Your task to perform on an android device: add a contact Image 0: 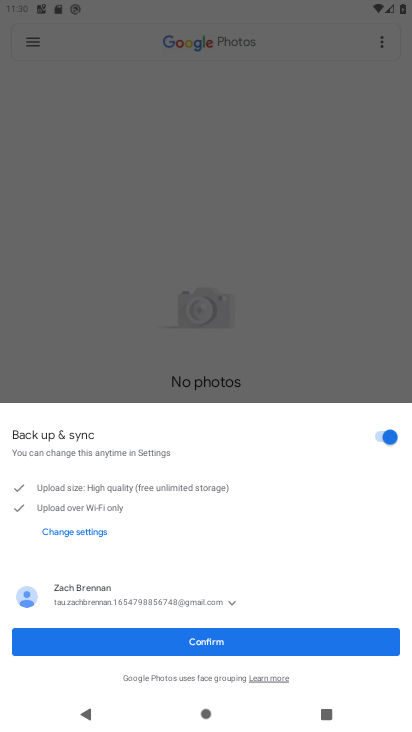
Step 0: press home button
Your task to perform on an android device: add a contact Image 1: 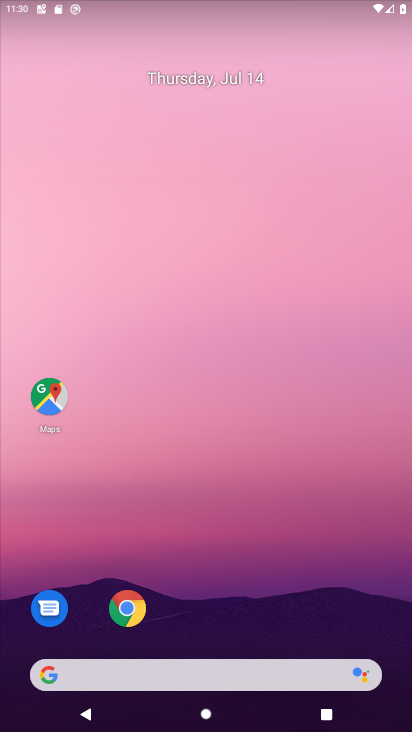
Step 1: drag from (252, 481) to (254, 230)
Your task to perform on an android device: add a contact Image 2: 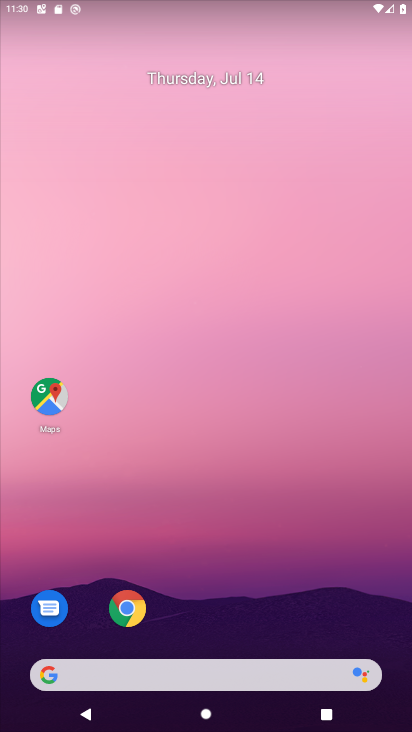
Step 2: drag from (180, 513) to (209, 102)
Your task to perform on an android device: add a contact Image 3: 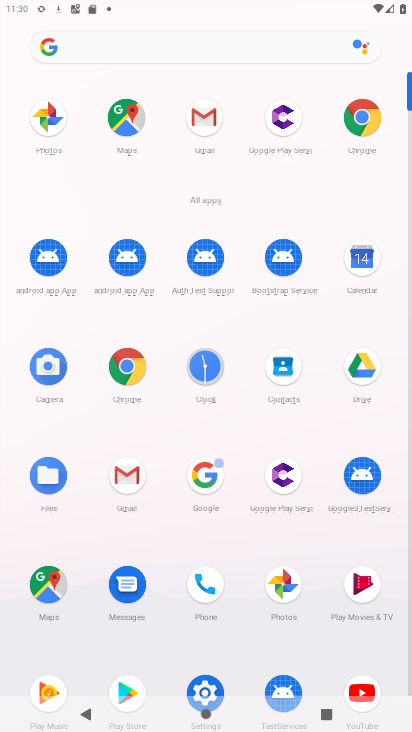
Step 3: click (295, 366)
Your task to perform on an android device: add a contact Image 4: 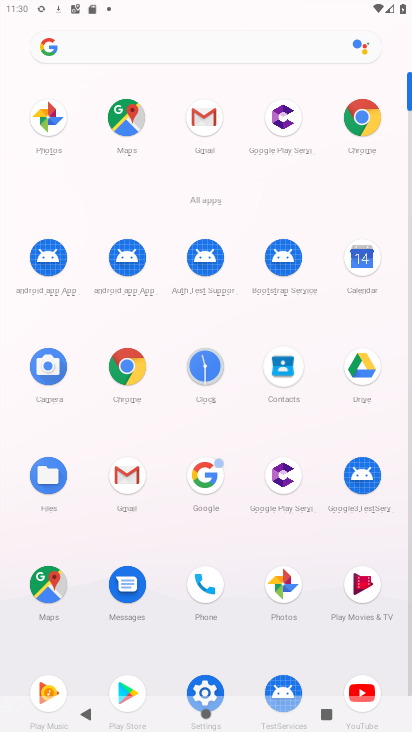
Step 4: click (294, 364)
Your task to perform on an android device: add a contact Image 5: 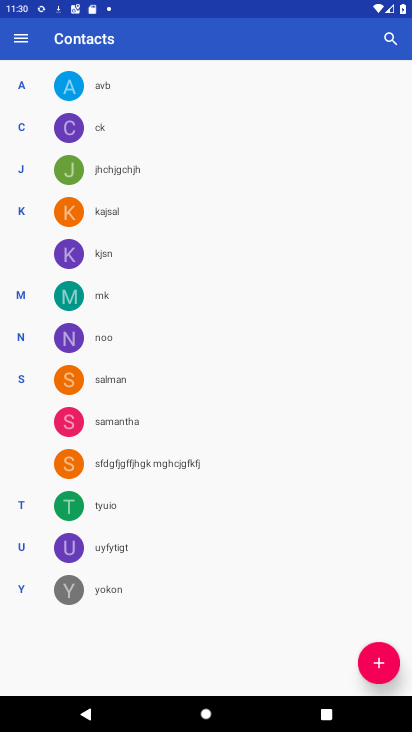
Step 5: click (380, 656)
Your task to perform on an android device: add a contact Image 6: 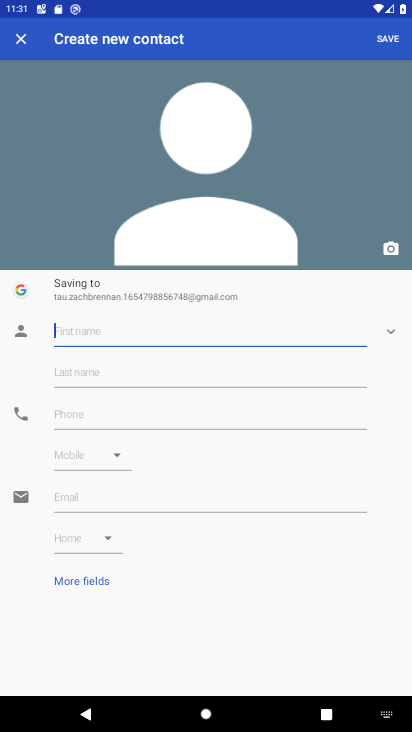
Step 6: type "basaa"
Your task to perform on an android device: add a contact Image 7: 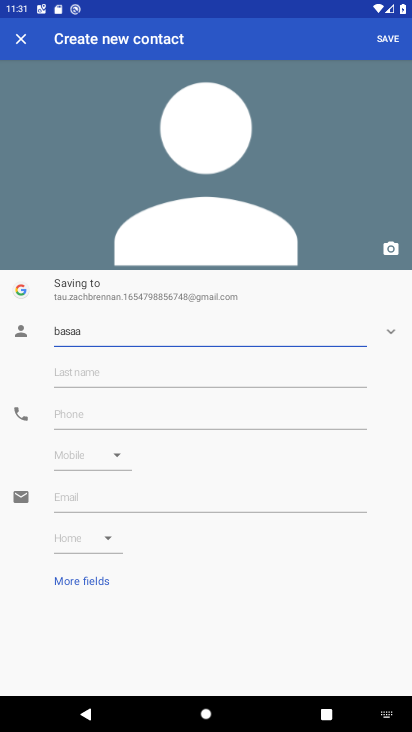
Step 7: click (390, 35)
Your task to perform on an android device: add a contact Image 8: 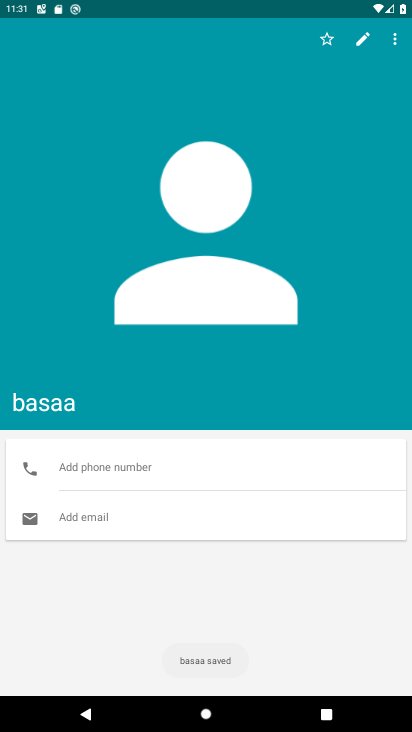
Step 8: task complete